Your task to perform on an android device: manage bookmarks in the chrome app Image 0: 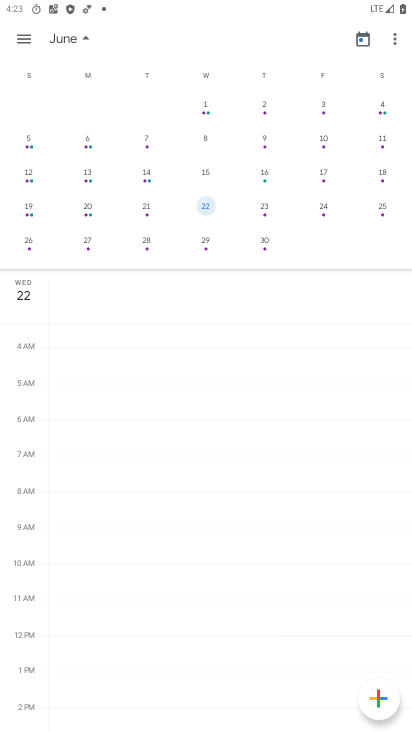
Step 0: press home button
Your task to perform on an android device: manage bookmarks in the chrome app Image 1: 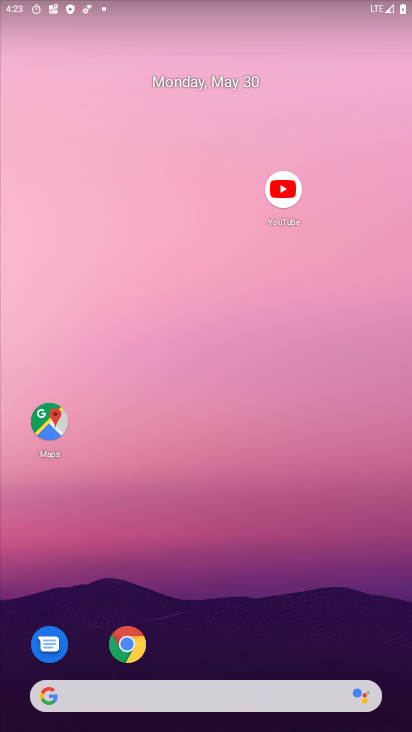
Step 1: click (133, 643)
Your task to perform on an android device: manage bookmarks in the chrome app Image 2: 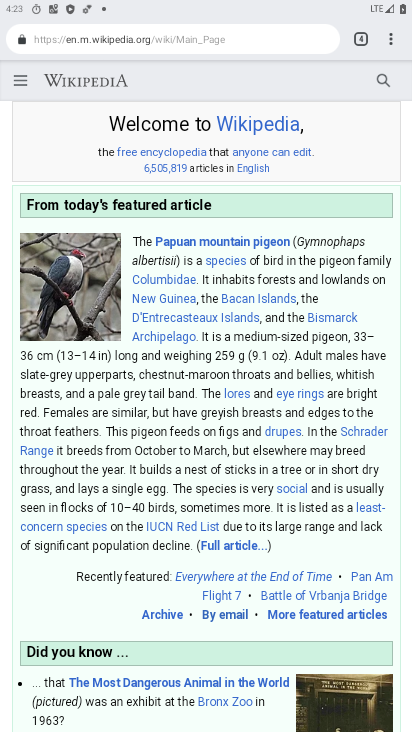
Step 2: click (399, 44)
Your task to perform on an android device: manage bookmarks in the chrome app Image 3: 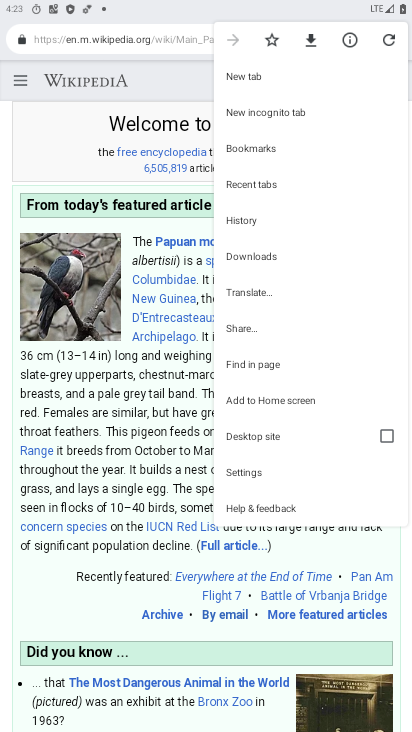
Step 3: click (256, 156)
Your task to perform on an android device: manage bookmarks in the chrome app Image 4: 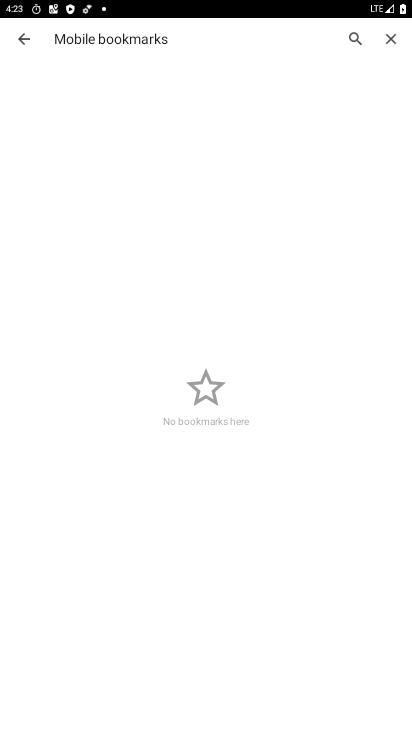
Step 4: task complete